Your task to perform on an android device: snooze an email in the gmail app Image 0: 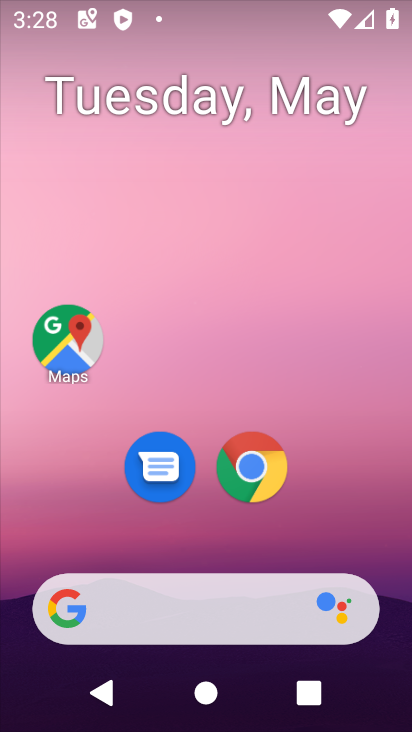
Step 0: drag from (355, 517) to (346, 26)
Your task to perform on an android device: snooze an email in the gmail app Image 1: 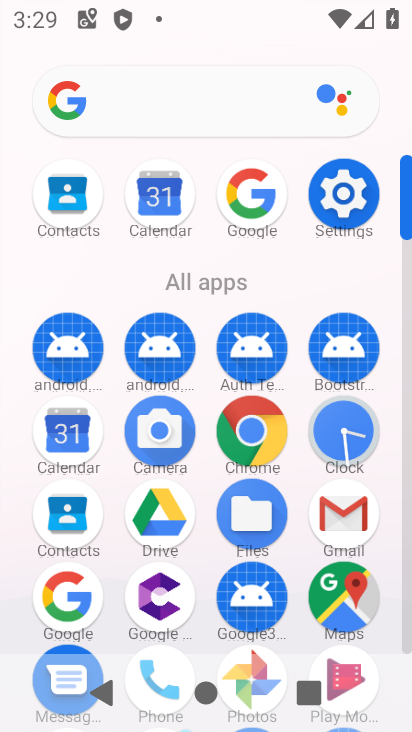
Step 1: click (343, 525)
Your task to perform on an android device: snooze an email in the gmail app Image 2: 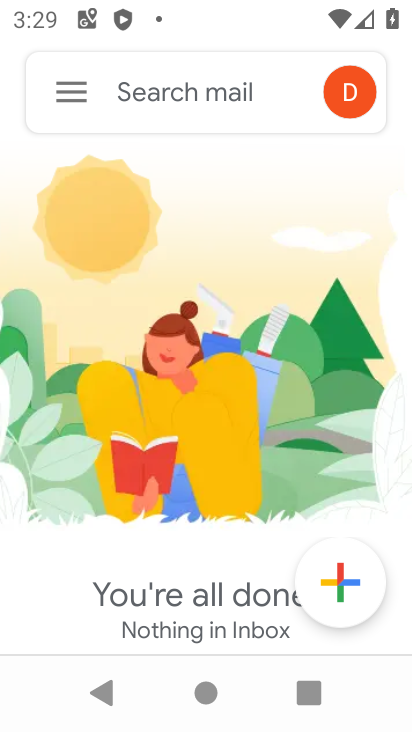
Step 2: click (61, 94)
Your task to perform on an android device: snooze an email in the gmail app Image 3: 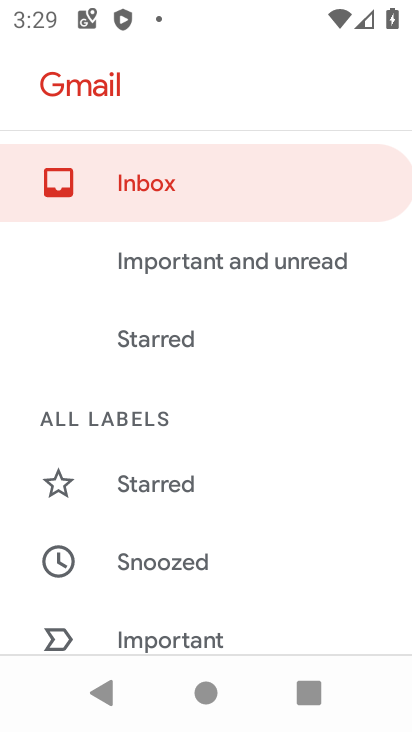
Step 3: click (149, 557)
Your task to perform on an android device: snooze an email in the gmail app Image 4: 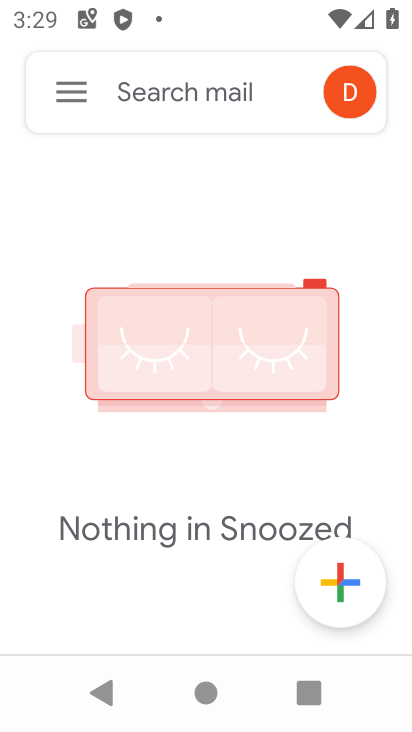
Step 4: task complete